Your task to perform on an android device: open sync settings in chrome Image 0: 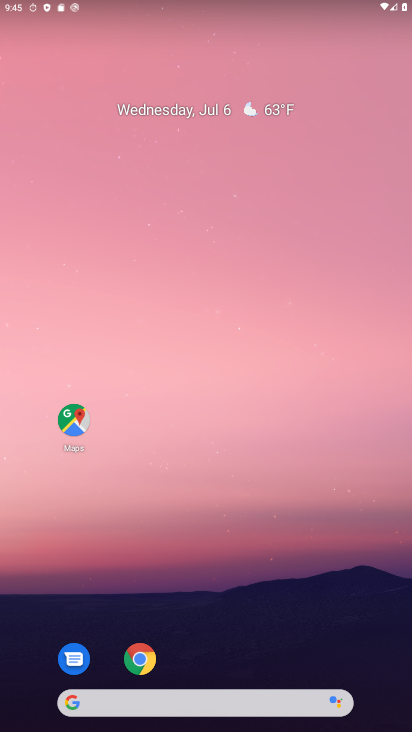
Step 0: drag from (273, 389) to (357, 55)
Your task to perform on an android device: open sync settings in chrome Image 1: 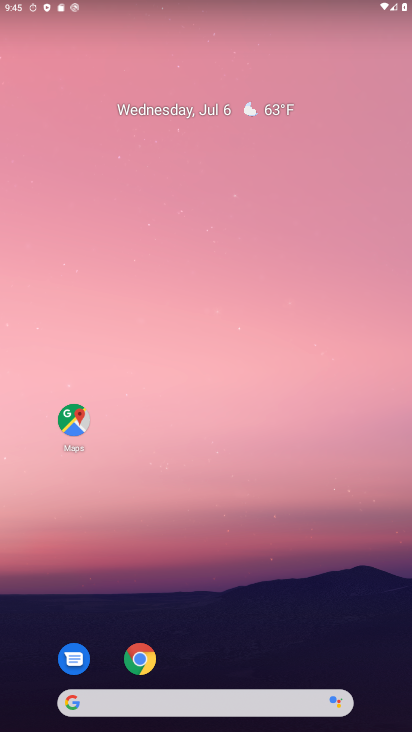
Step 1: drag from (217, 675) to (260, 319)
Your task to perform on an android device: open sync settings in chrome Image 2: 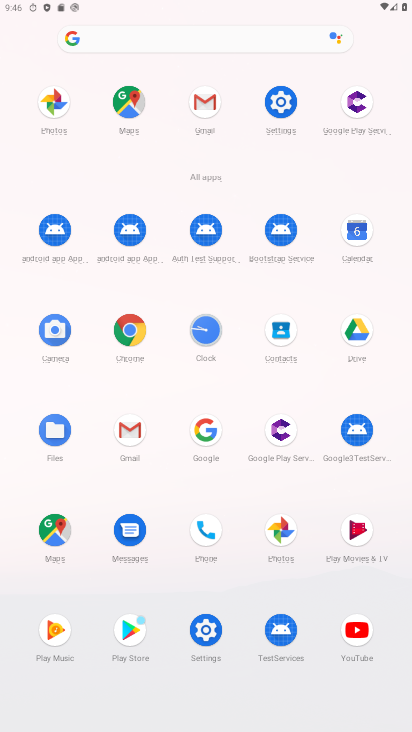
Step 2: click (126, 325)
Your task to perform on an android device: open sync settings in chrome Image 3: 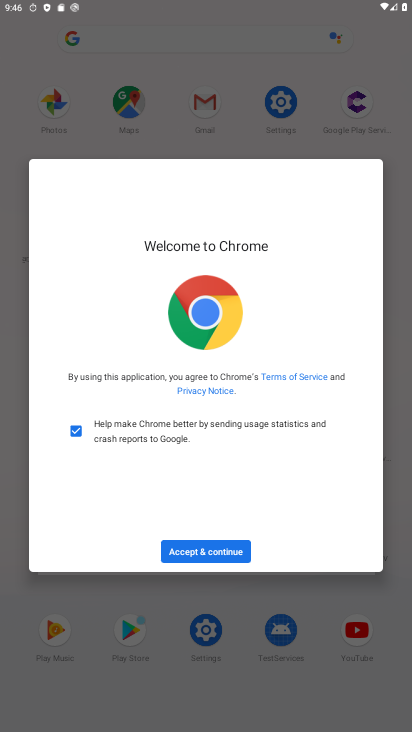
Step 3: click (221, 546)
Your task to perform on an android device: open sync settings in chrome Image 4: 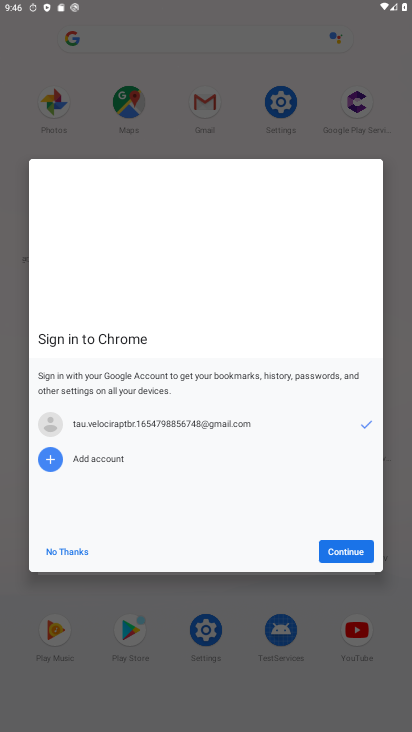
Step 4: click (47, 551)
Your task to perform on an android device: open sync settings in chrome Image 5: 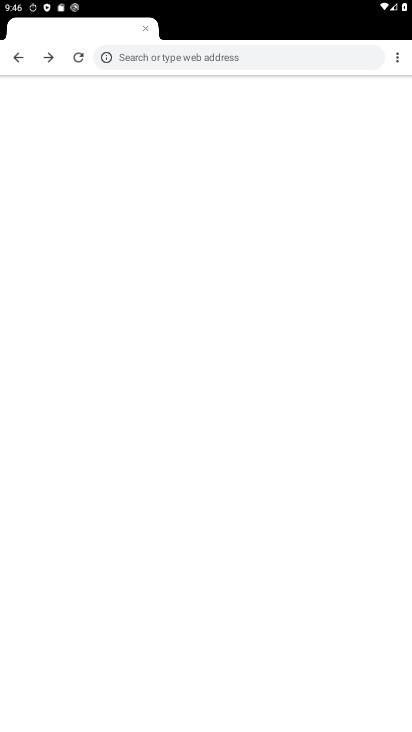
Step 5: click (403, 59)
Your task to perform on an android device: open sync settings in chrome Image 6: 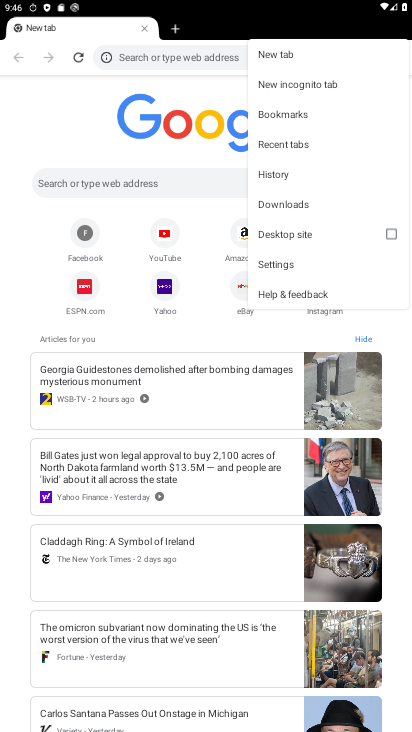
Step 6: click (277, 256)
Your task to perform on an android device: open sync settings in chrome Image 7: 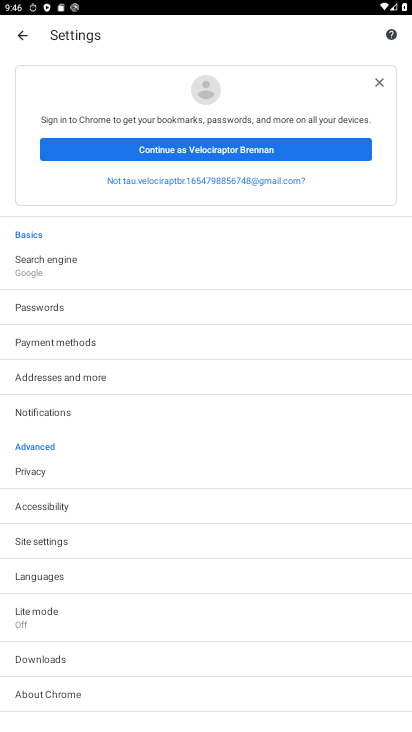
Step 7: click (108, 536)
Your task to perform on an android device: open sync settings in chrome Image 8: 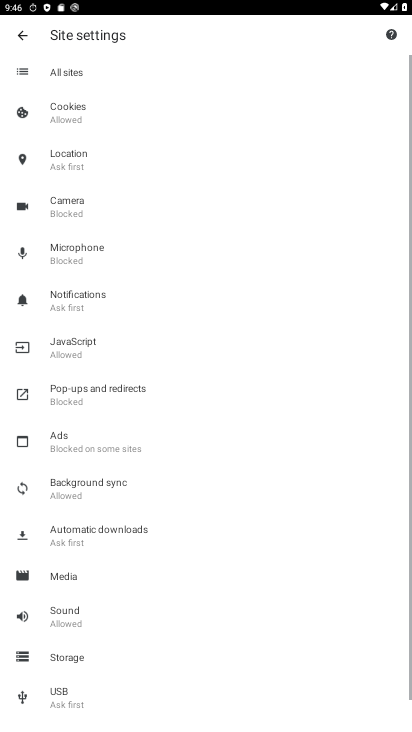
Step 8: drag from (122, 516) to (245, 188)
Your task to perform on an android device: open sync settings in chrome Image 9: 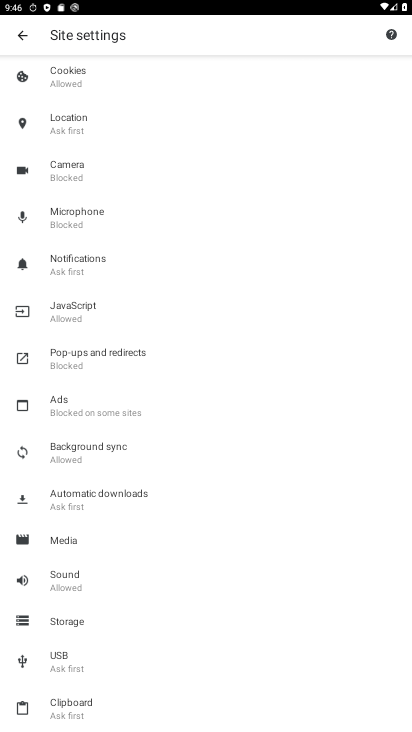
Step 9: click (133, 454)
Your task to perform on an android device: open sync settings in chrome Image 10: 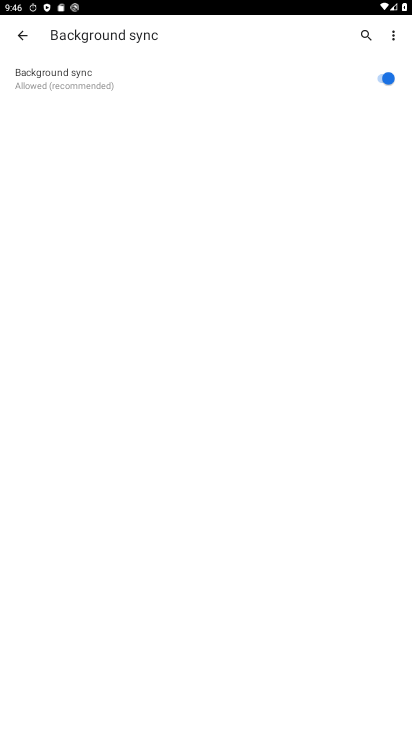
Step 10: task complete